Your task to perform on an android device: Open the phone app and click the voicemail tab. Image 0: 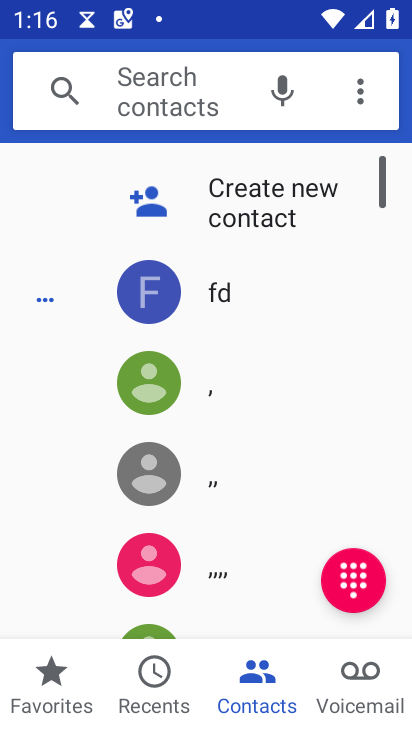
Step 0: click (346, 658)
Your task to perform on an android device: Open the phone app and click the voicemail tab. Image 1: 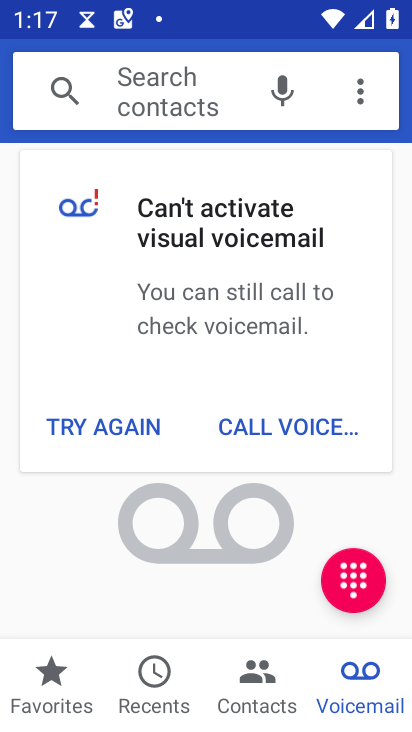
Step 1: task complete